Your task to perform on an android device: turn off sleep mode Image 0: 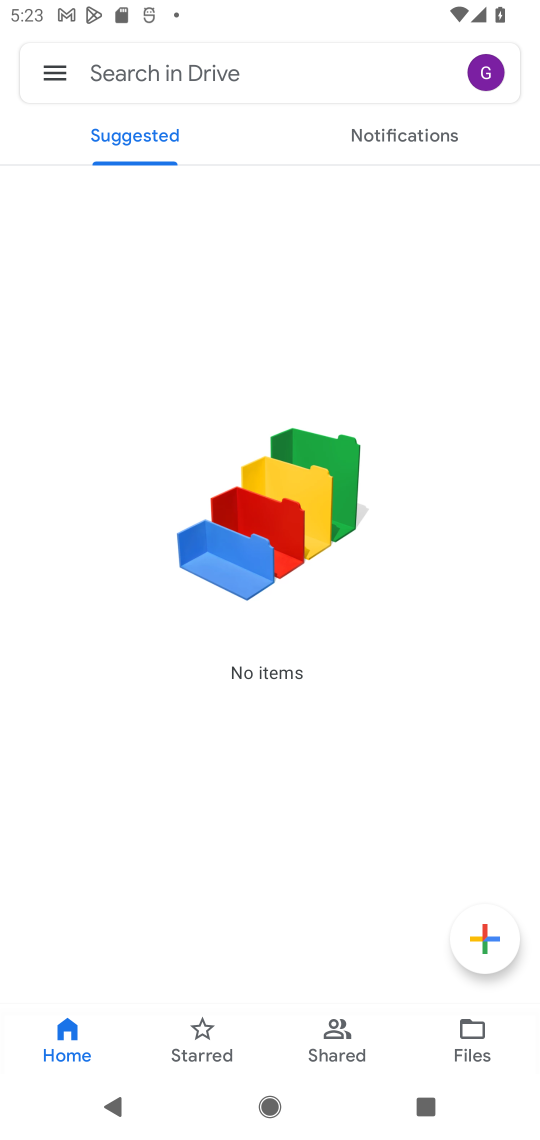
Step 0: press home button
Your task to perform on an android device: turn off sleep mode Image 1: 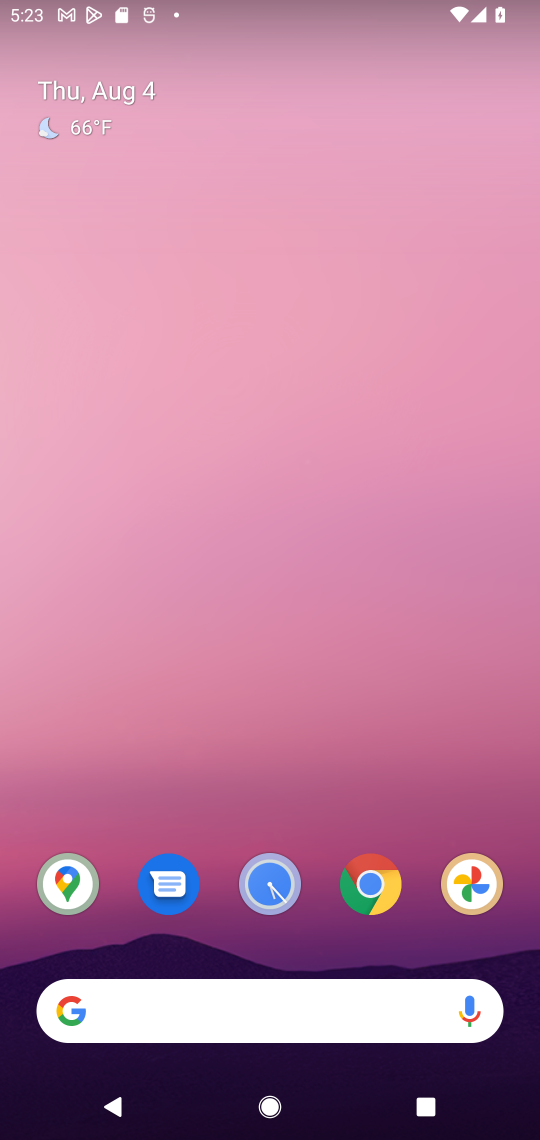
Step 1: drag from (306, 963) to (355, 261)
Your task to perform on an android device: turn off sleep mode Image 2: 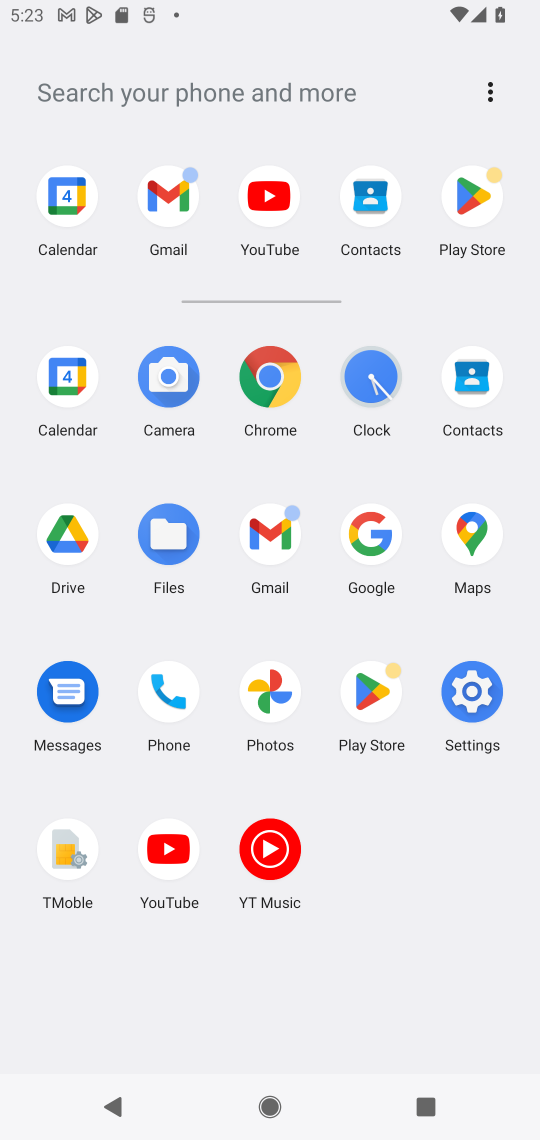
Step 2: click (461, 719)
Your task to perform on an android device: turn off sleep mode Image 3: 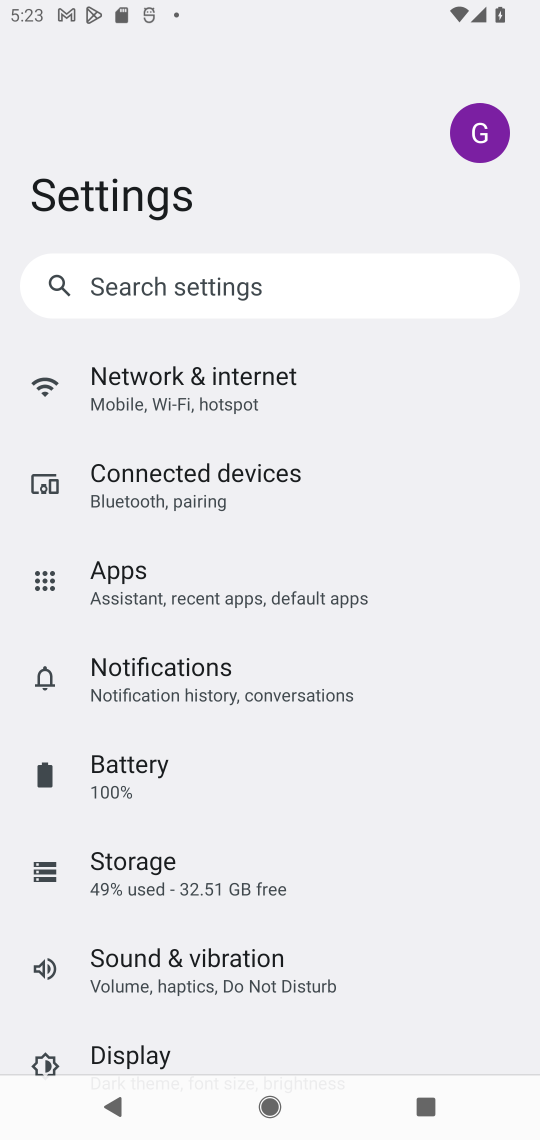
Step 3: task complete